Your task to perform on an android device: Show the shopping cart on bestbuy. Add "acer predator" to the cart on bestbuy, then select checkout. Image 0: 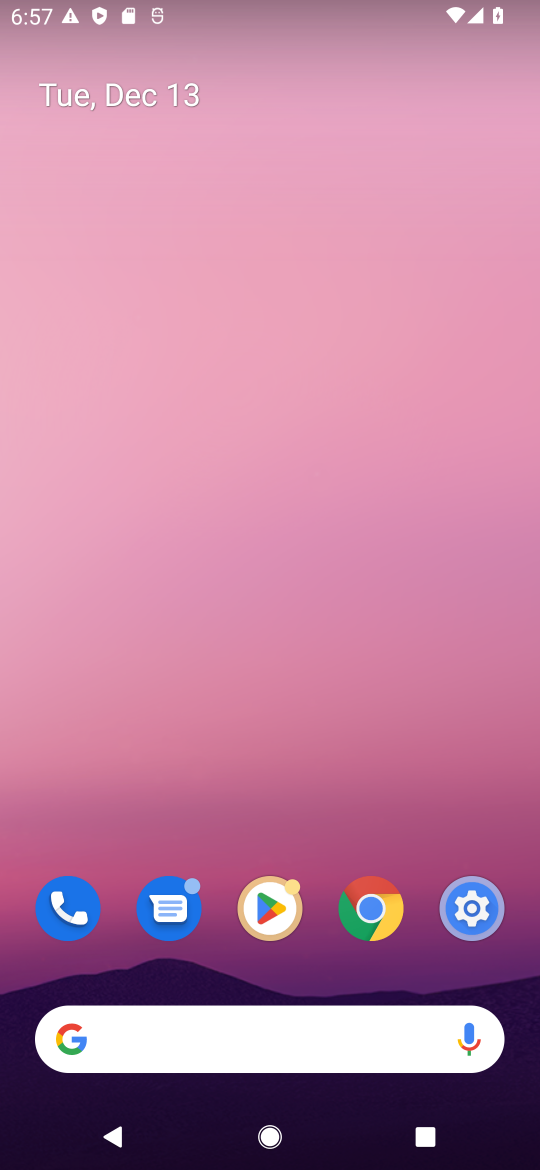
Step 0: press home button
Your task to perform on an android device: Show the shopping cart on bestbuy. Add "acer predator" to the cart on bestbuy, then select checkout. Image 1: 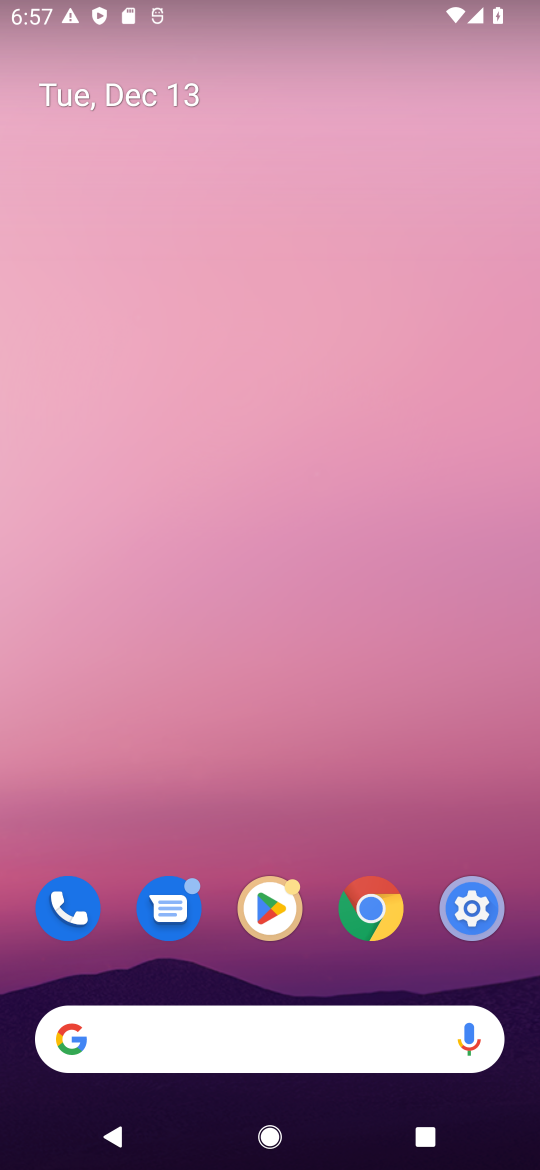
Step 1: click (115, 1035)
Your task to perform on an android device: Show the shopping cart on bestbuy. Add "acer predator" to the cart on bestbuy, then select checkout. Image 2: 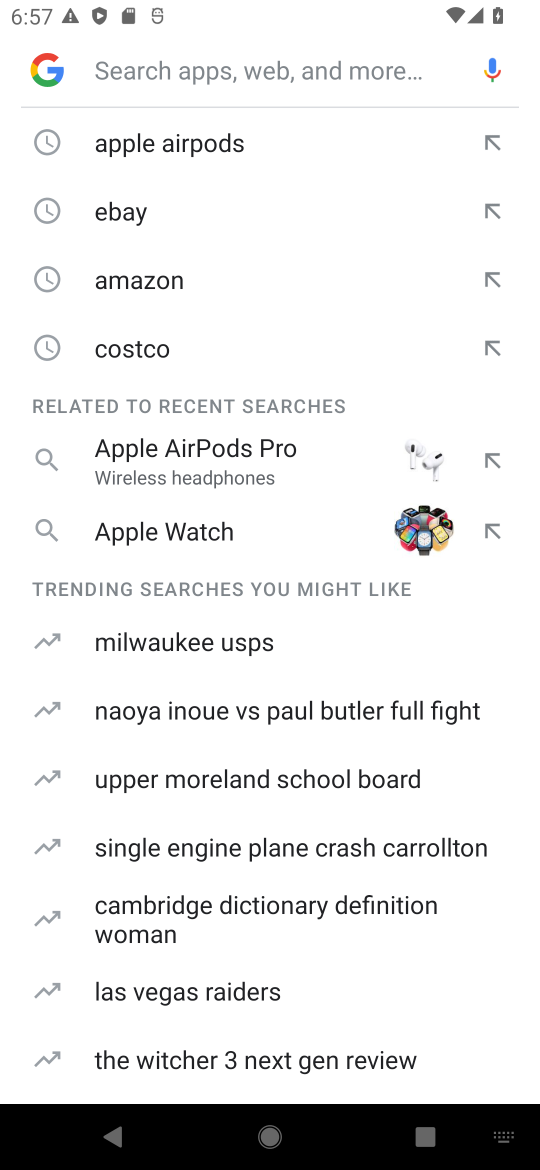
Step 2: type "bestbuy"
Your task to perform on an android device: Show the shopping cart on bestbuy. Add "acer predator" to the cart on bestbuy, then select checkout. Image 3: 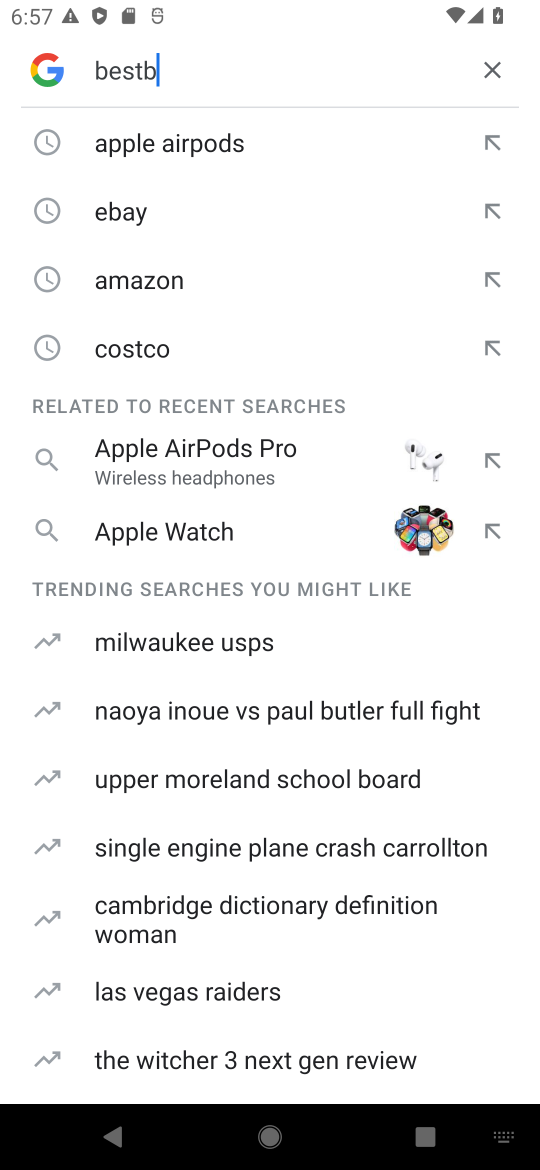
Step 3: press enter
Your task to perform on an android device: Show the shopping cart on bestbuy. Add "acer predator" to the cart on bestbuy, then select checkout. Image 4: 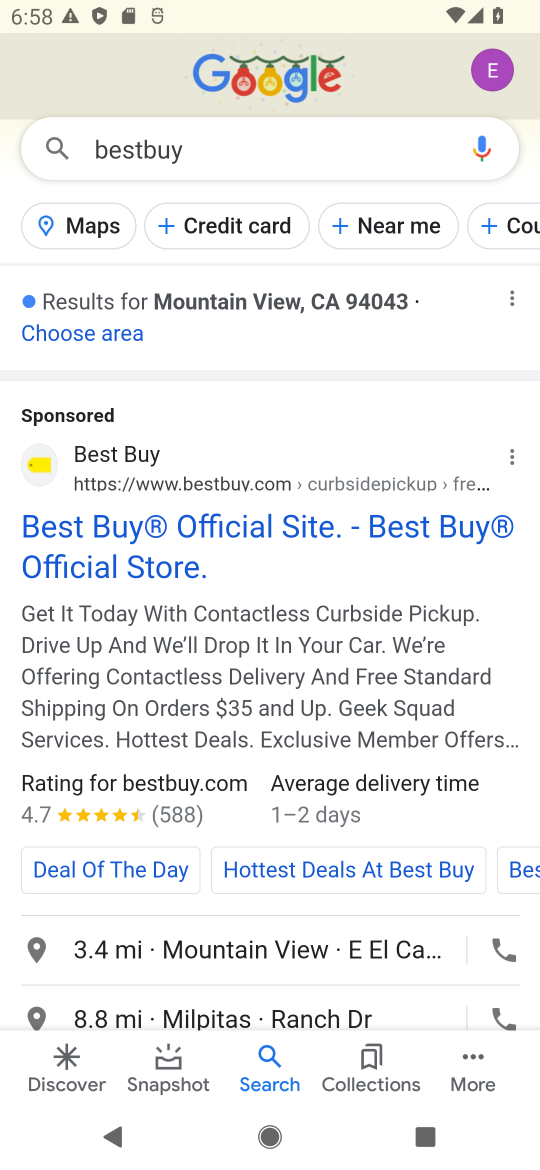
Step 4: click (131, 524)
Your task to perform on an android device: Show the shopping cart on bestbuy. Add "acer predator" to the cart on bestbuy, then select checkout. Image 5: 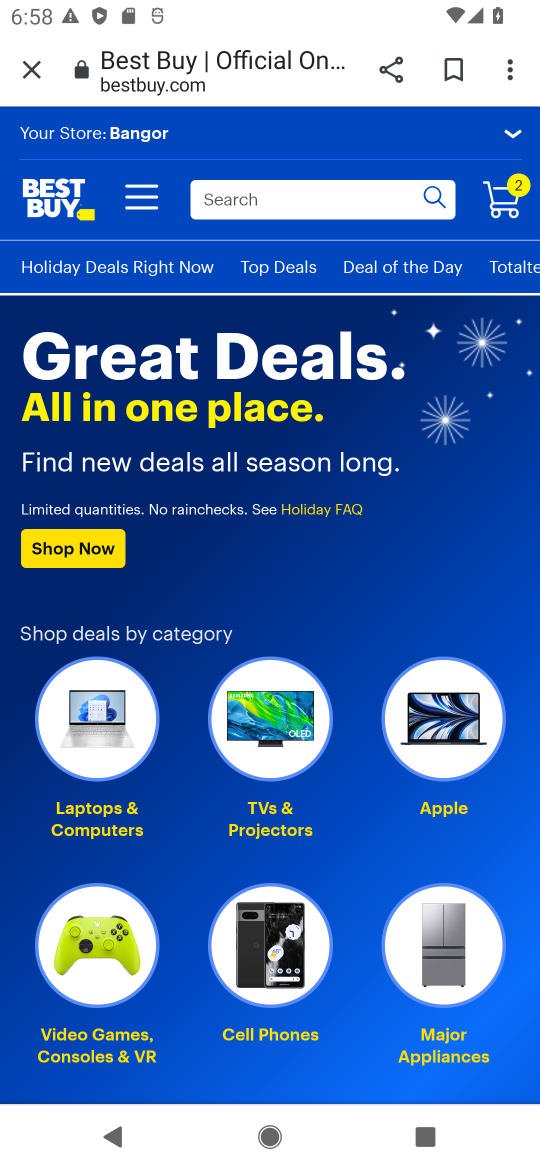
Step 5: click (513, 193)
Your task to perform on an android device: Show the shopping cart on bestbuy. Add "acer predator" to the cart on bestbuy, then select checkout. Image 6: 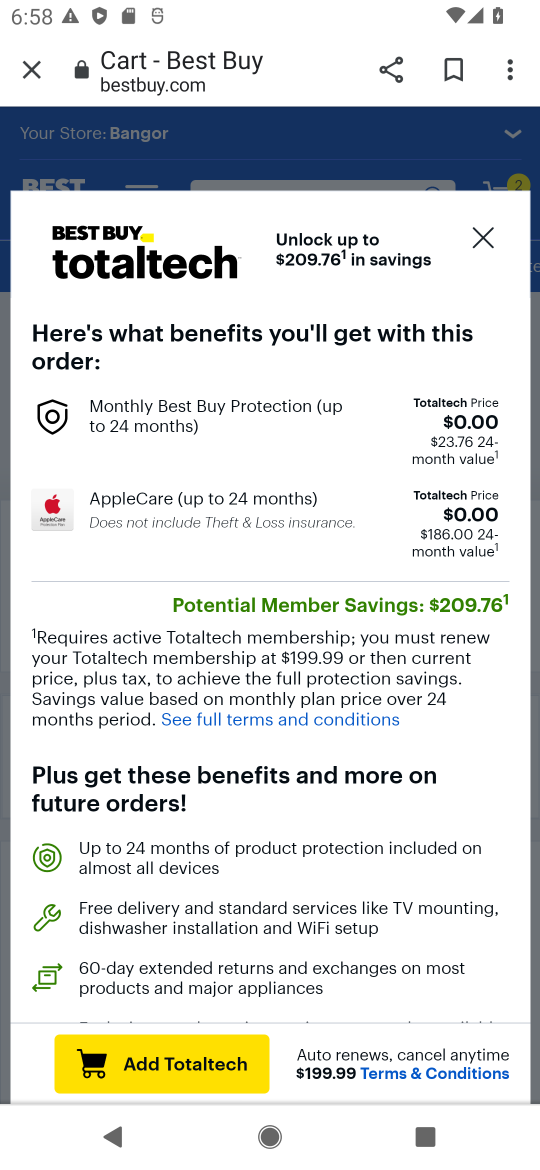
Step 6: click (485, 233)
Your task to perform on an android device: Show the shopping cart on bestbuy. Add "acer predator" to the cart on bestbuy, then select checkout. Image 7: 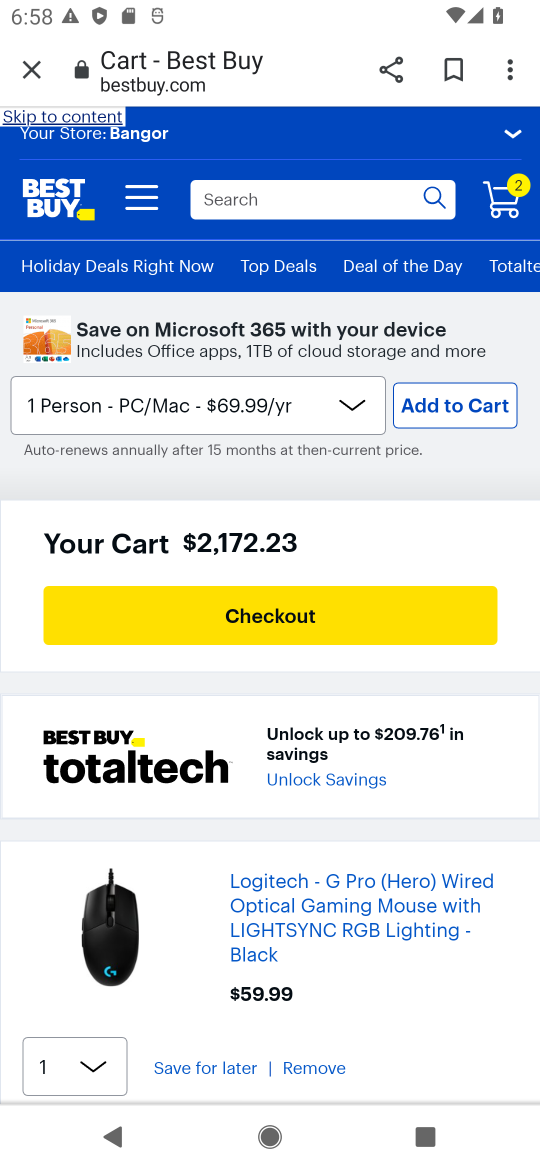
Step 7: click (287, 199)
Your task to perform on an android device: Show the shopping cart on bestbuy. Add "acer predator" to the cart on bestbuy, then select checkout. Image 8: 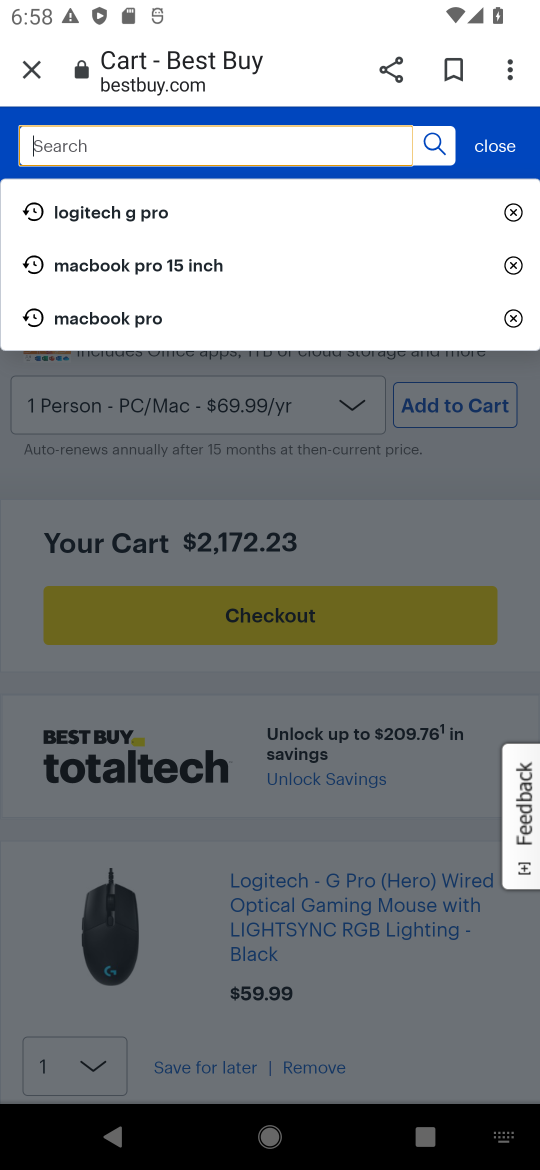
Step 8: type "acer predator"
Your task to perform on an android device: Show the shopping cart on bestbuy. Add "acer predator" to the cart on bestbuy, then select checkout. Image 9: 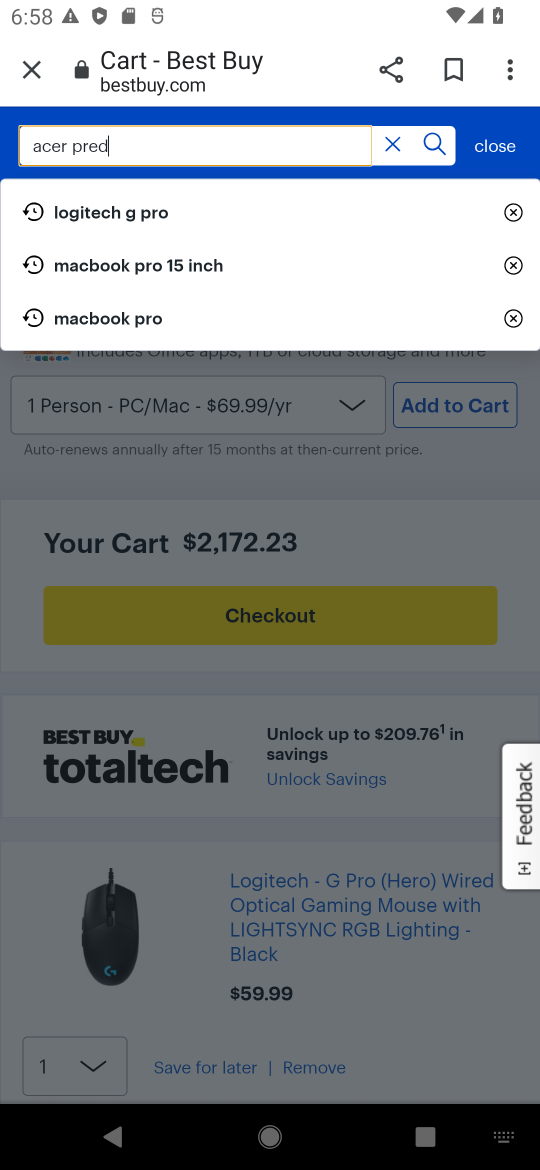
Step 9: press enter
Your task to perform on an android device: Show the shopping cart on bestbuy. Add "acer predator" to the cart on bestbuy, then select checkout. Image 10: 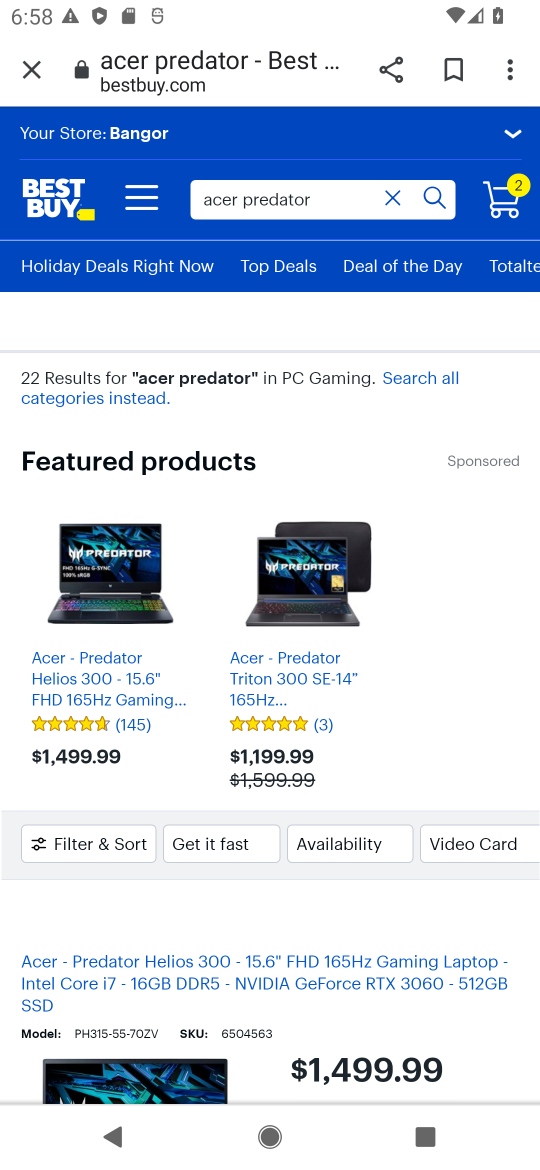
Step 10: drag from (275, 973) to (275, 478)
Your task to perform on an android device: Show the shopping cart on bestbuy. Add "acer predator" to the cart on bestbuy, then select checkout. Image 11: 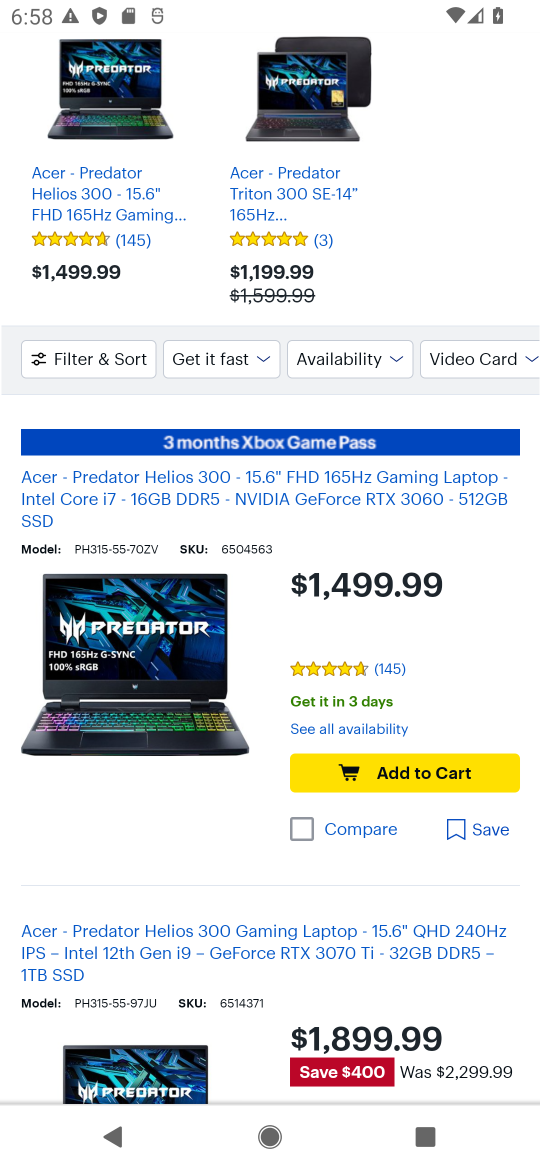
Step 11: drag from (240, 893) to (282, 334)
Your task to perform on an android device: Show the shopping cart on bestbuy. Add "acer predator" to the cart on bestbuy, then select checkout. Image 12: 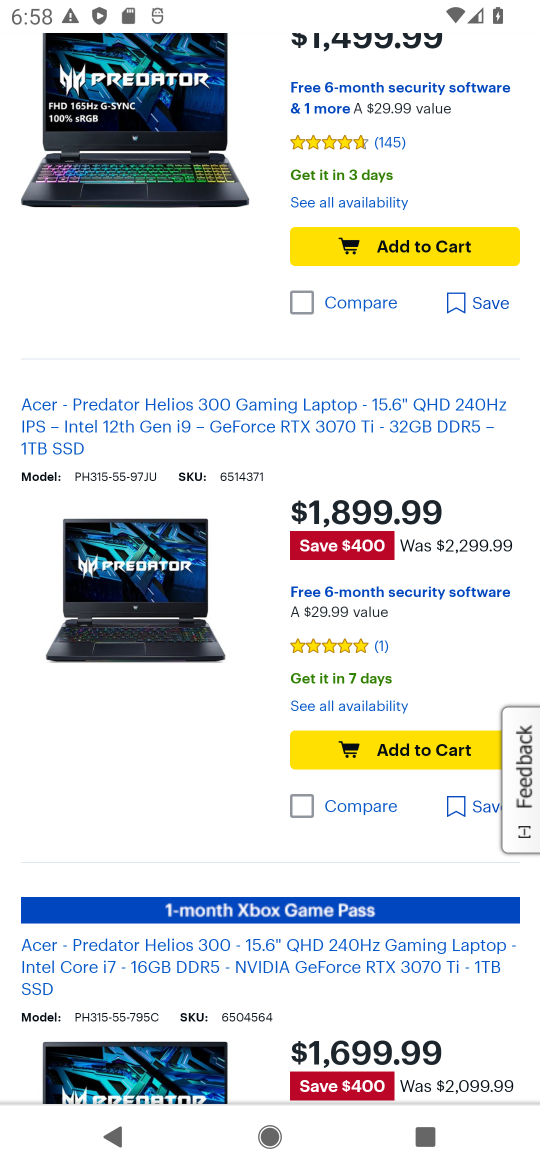
Step 12: click (386, 252)
Your task to perform on an android device: Show the shopping cart on bestbuy. Add "acer predator" to the cart on bestbuy, then select checkout. Image 13: 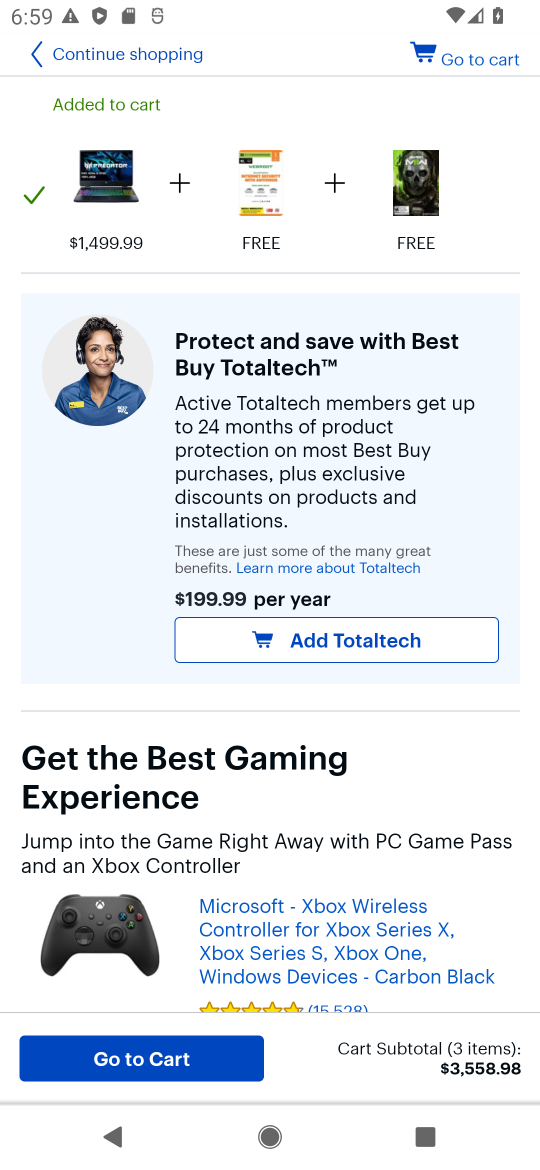
Step 13: click (155, 1063)
Your task to perform on an android device: Show the shopping cart on bestbuy. Add "acer predator" to the cart on bestbuy, then select checkout. Image 14: 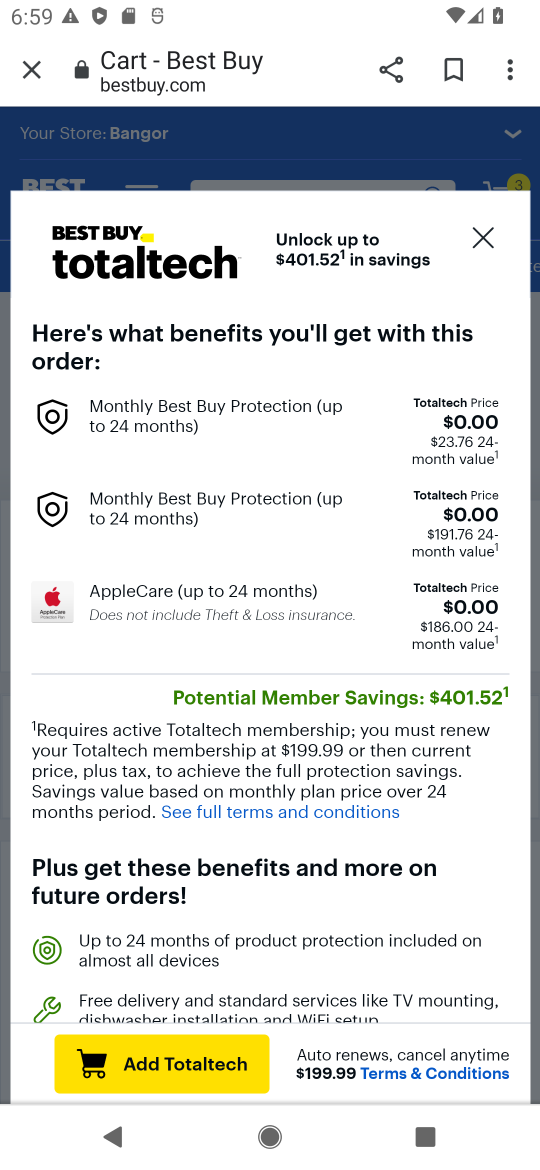
Step 14: click (484, 241)
Your task to perform on an android device: Show the shopping cart on bestbuy. Add "acer predator" to the cart on bestbuy, then select checkout. Image 15: 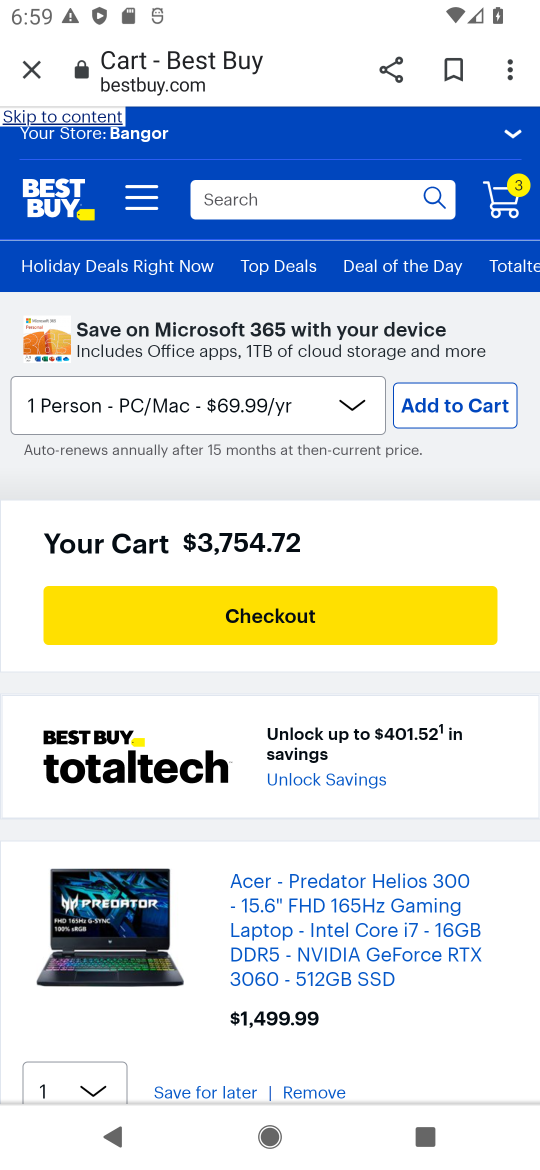
Step 15: click (241, 613)
Your task to perform on an android device: Show the shopping cart on bestbuy. Add "acer predator" to the cart on bestbuy, then select checkout. Image 16: 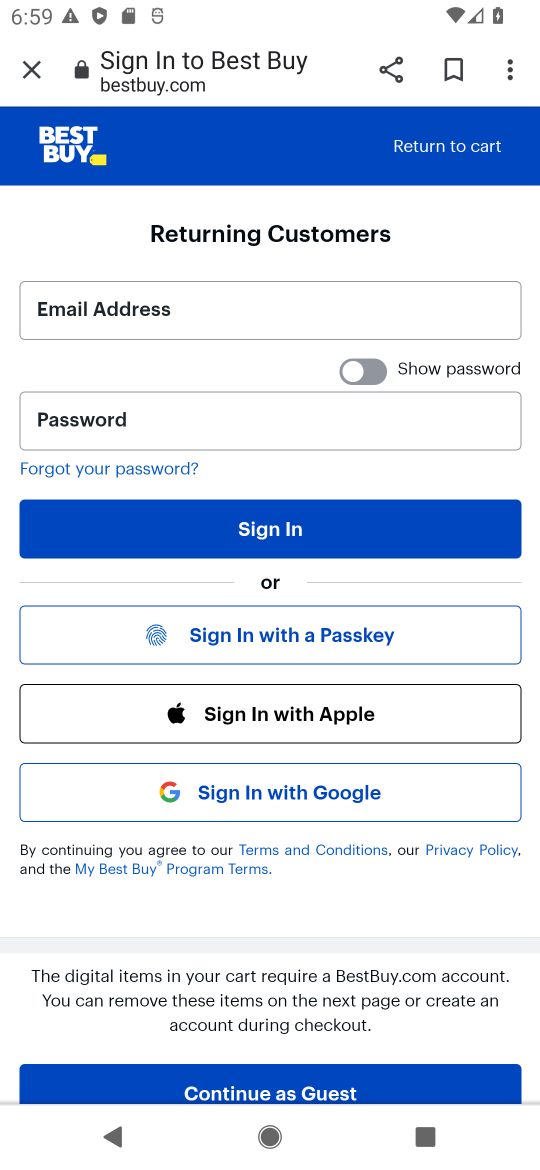
Step 16: task complete